Your task to perform on an android device: Clear the shopping cart on costco. Search for logitech g pro on costco, select the first entry, add it to the cart, then select checkout. Image 0: 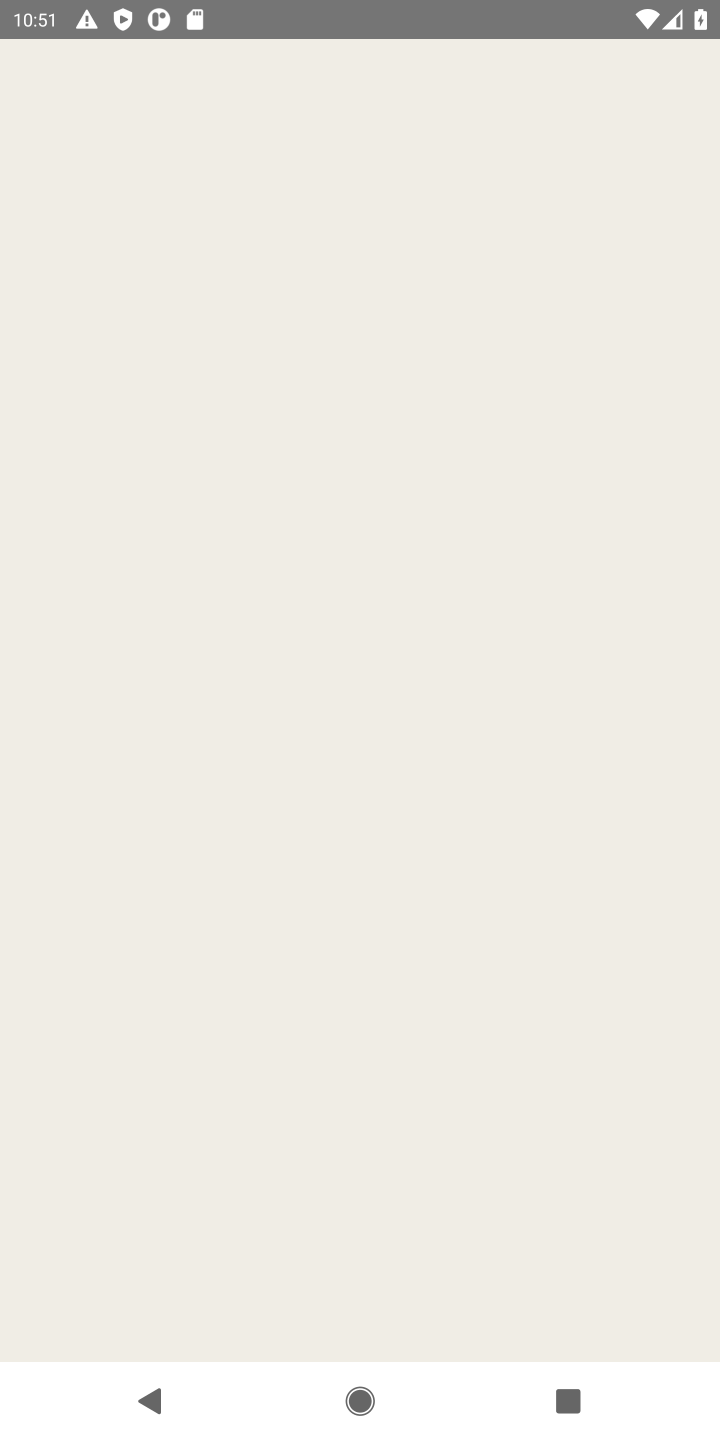
Step 0: press home button
Your task to perform on an android device: Clear the shopping cart on costco. Search for logitech g pro on costco, select the first entry, add it to the cart, then select checkout. Image 1: 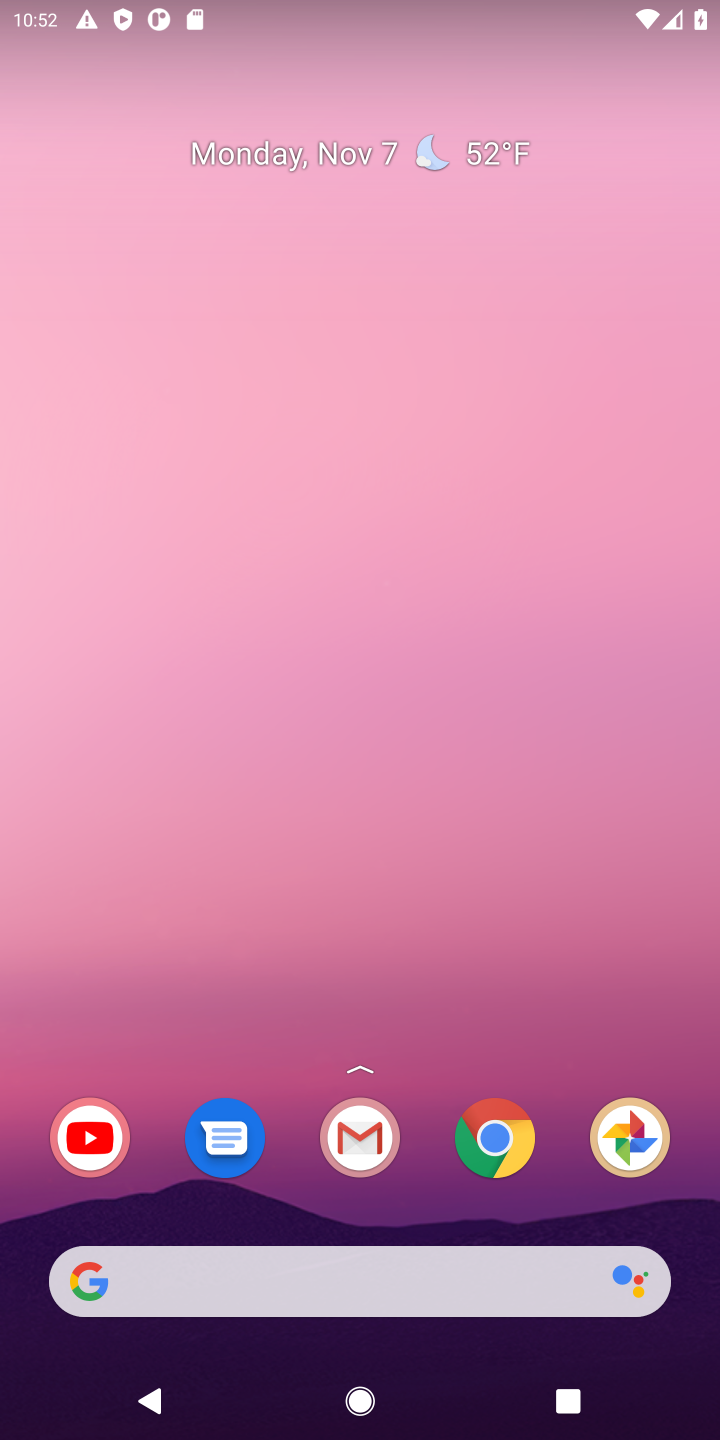
Step 1: click (496, 1130)
Your task to perform on an android device: Clear the shopping cart on costco. Search for logitech g pro on costco, select the first entry, add it to the cart, then select checkout. Image 2: 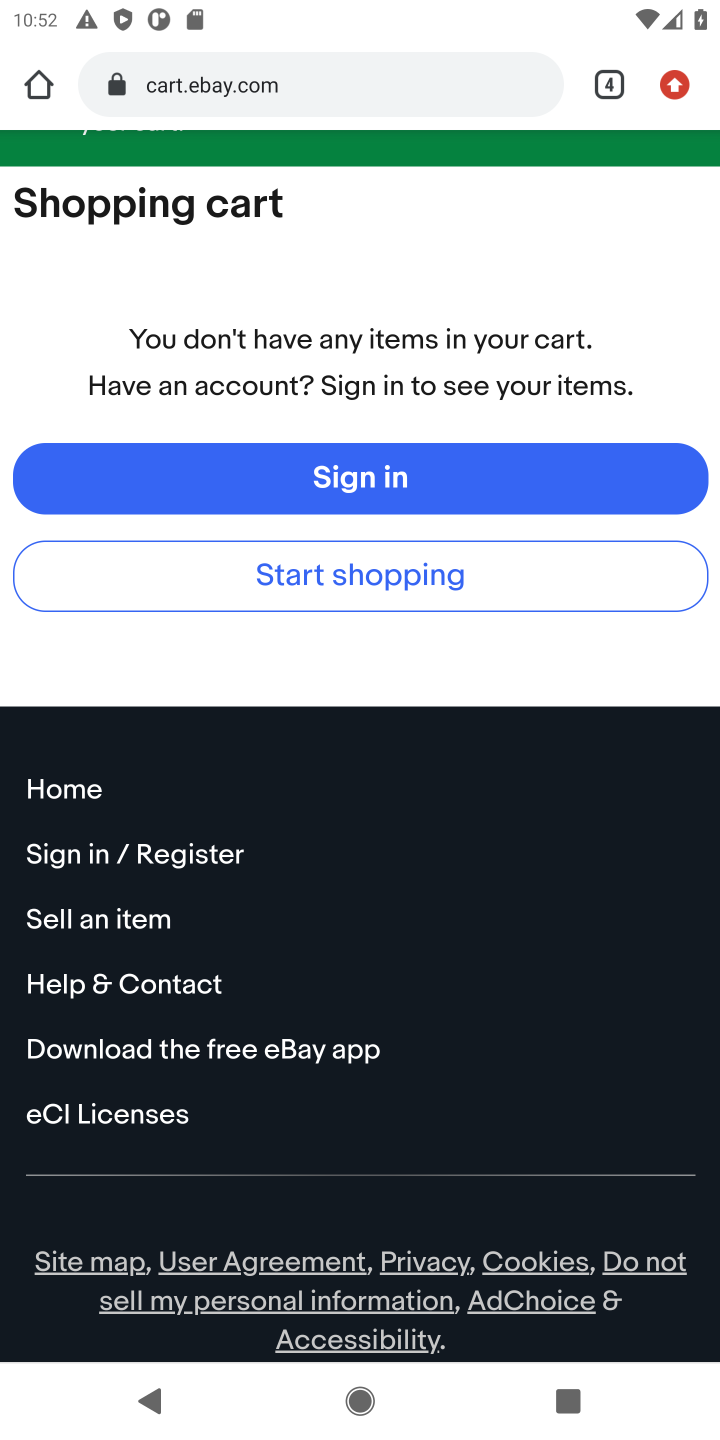
Step 2: click (214, 79)
Your task to perform on an android device: Clear the shopping cart on costco. Search for logitech g pro on costco, select the first entry, add it to the cart, then select checkout. Image 3: 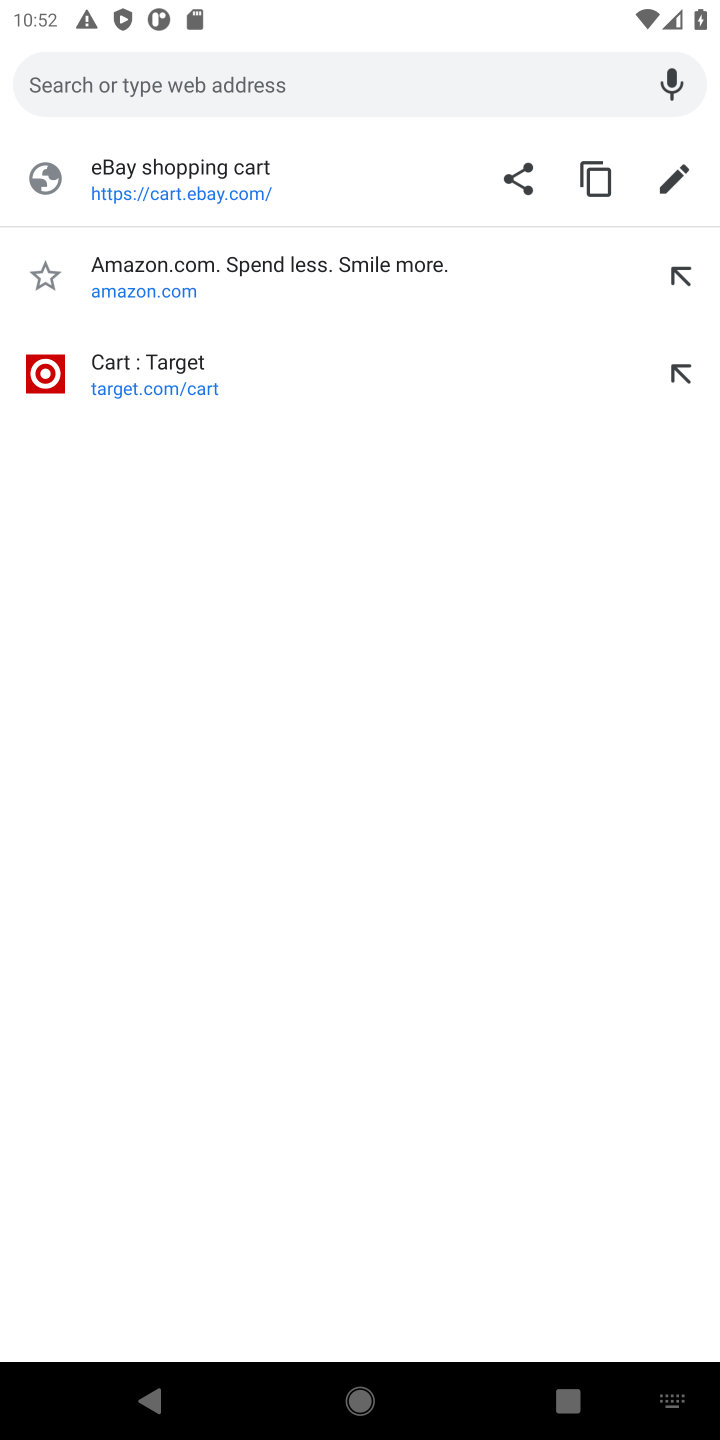
Step 3: type "costco"
Your task to perform on an android device: Clear the shopping cart on costco. Search for logitech g pro on costco, select the first entry, add it to the cart, then select checkout. Image 4: 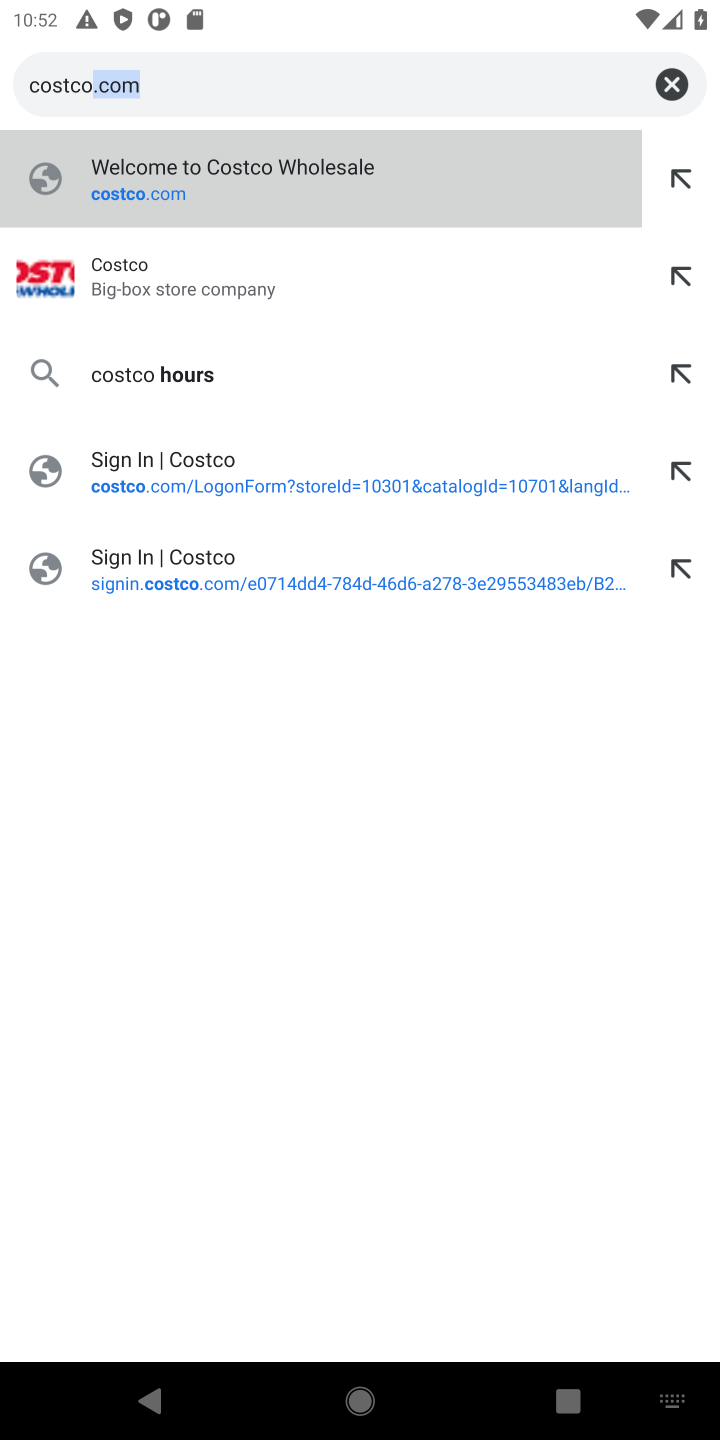
Step 4: click (147, 273)
Your task to perform on an android device: Clear the shopping cart on costco. Search for logitech g pro on costco, select the first entry, add it to the cart, then select checkout. Image 5: 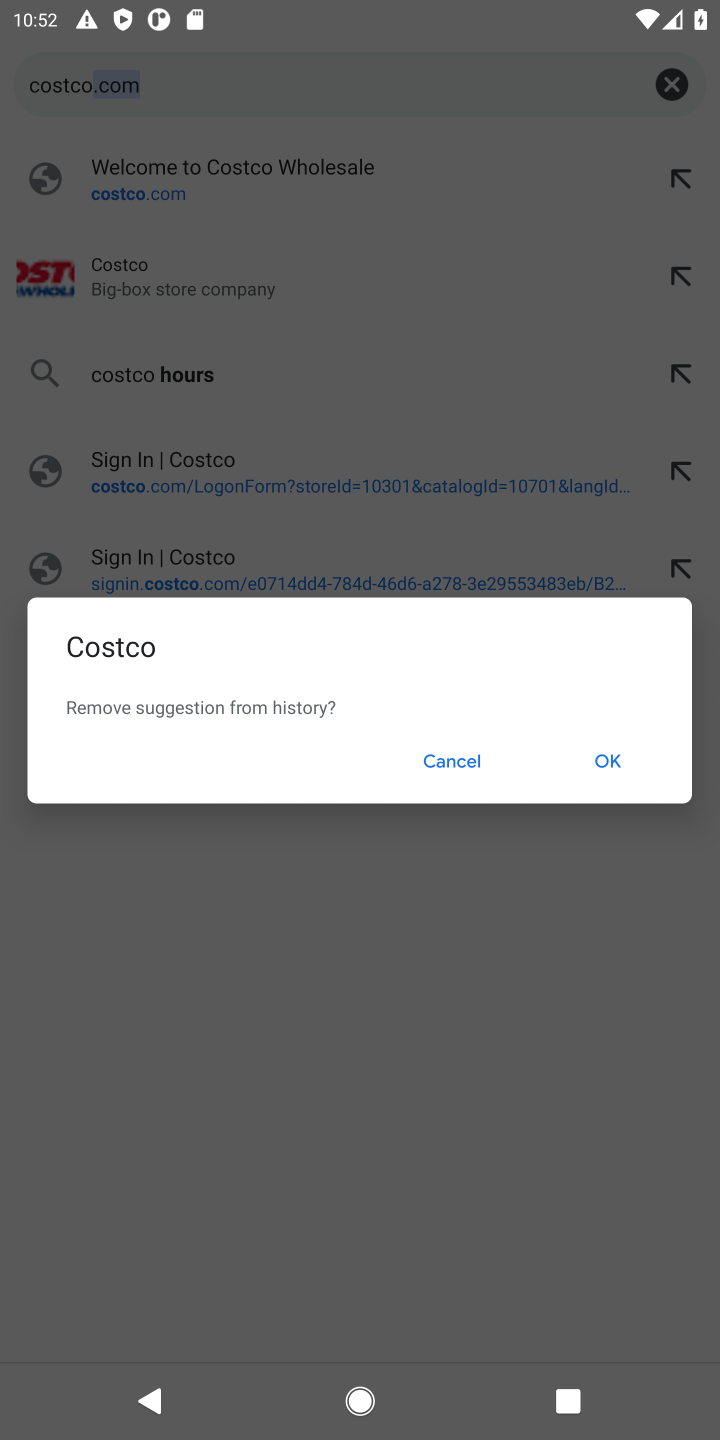
Step 5: click (599, 750)
Your task to perform on an android device: Clear the shopping cart on costco. Search for logitech g pro on costco, select the first entry, add it to the cart, then select checkout. Image 6: 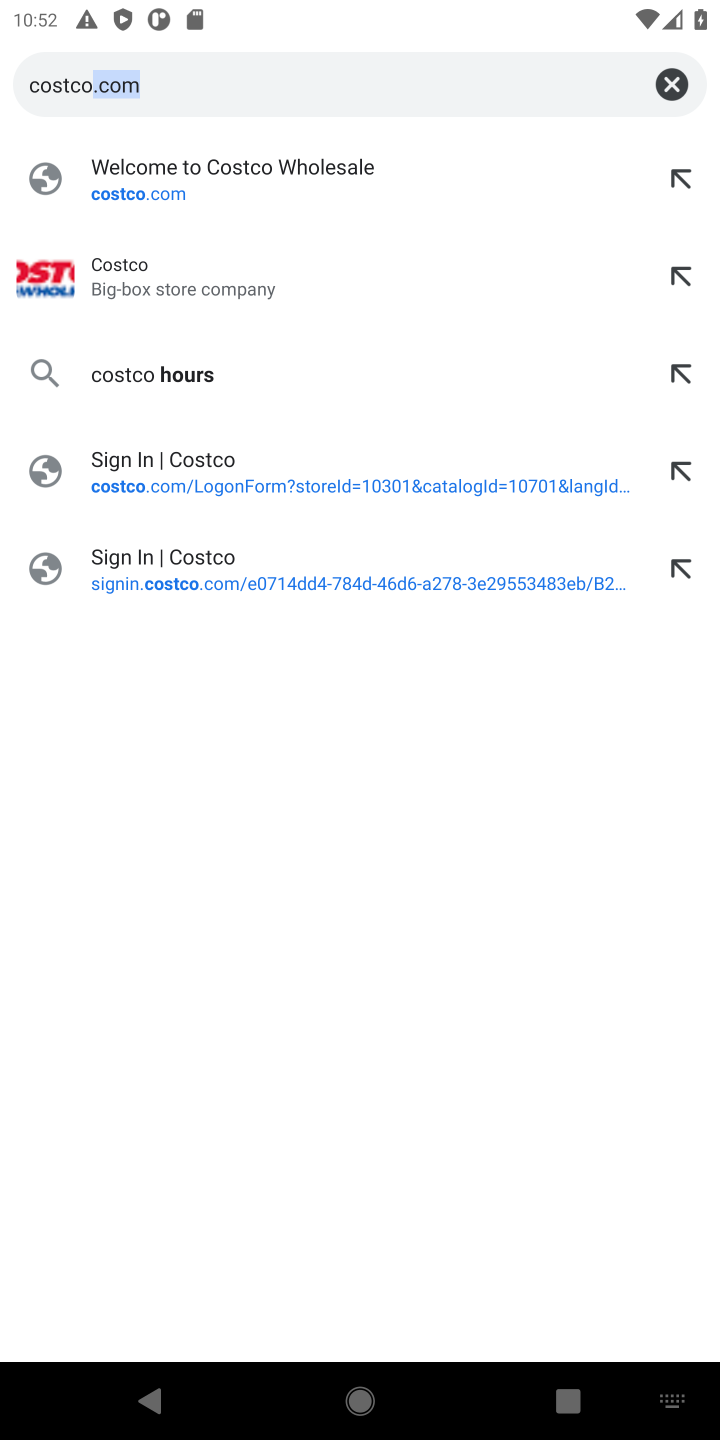
Step 6: click (98, 274)
Your task to perform on an android device: Clear the shopping cart on costco. Search for logitech g pro on costco, select the first entry, add it to the cart, then select checkout. Image 7: 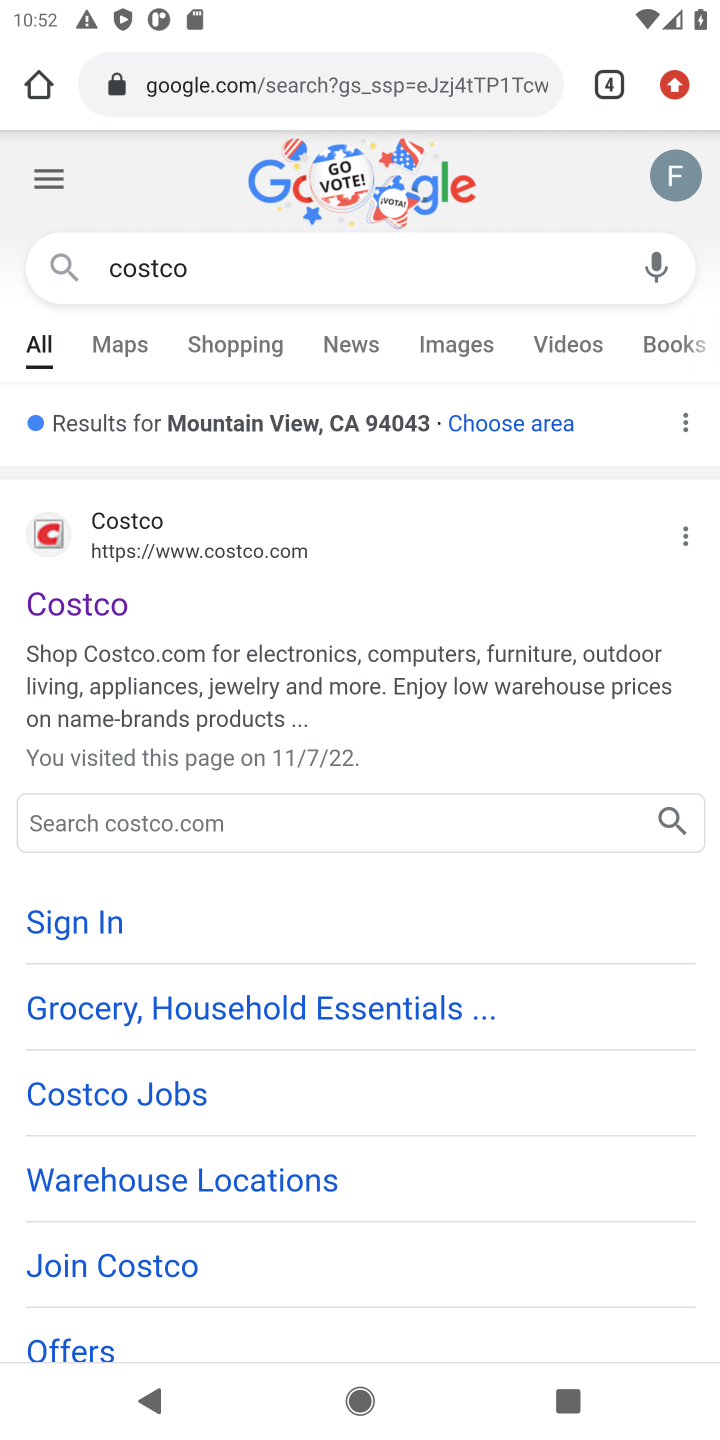
Step 7: click (72, 608)
Your task to perform on an android device: Clear the shopping cart on costco. Search for logitech g pro on costco, select the first entry, add it to the cart, then select checkout. Image 8: 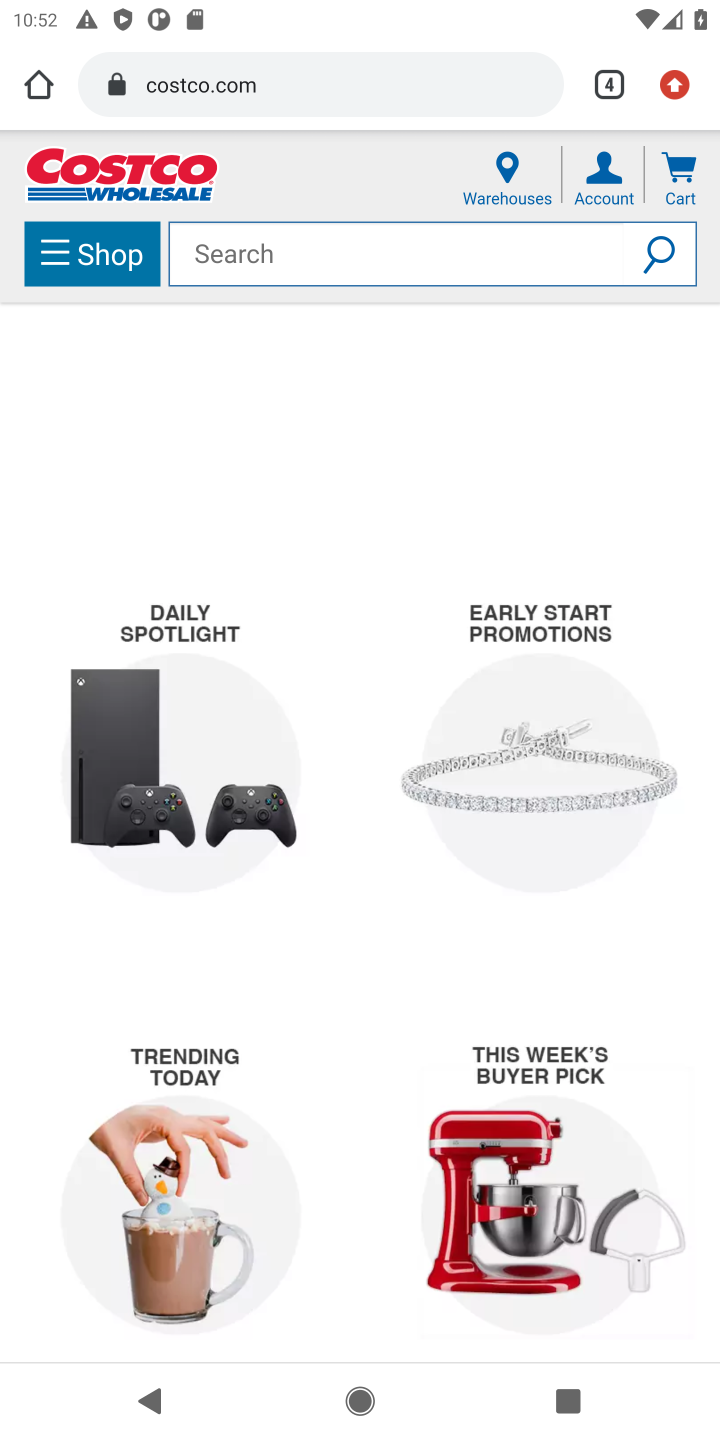
Step 8: click (259, 255)
Your task to perform on an android device: Clear the shopping cart on costco. Search for logitech g pro on costco, select the first entry, add it to the cart, then select checkout. Image 9: 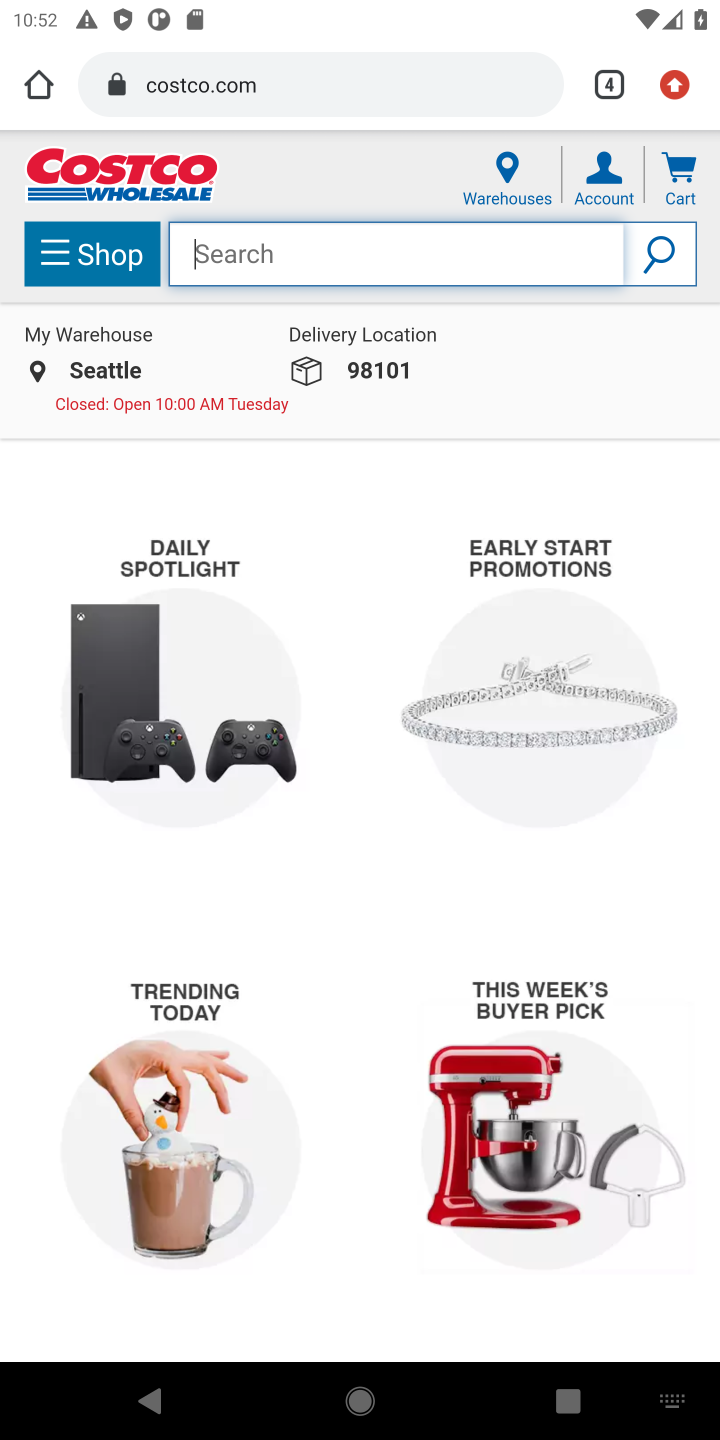
Step 9: type "logitech g pro"
Your task to perform on an android device: Clear the shopping cart on costco. Search for logitech g pro on costco, select the first entry, add it to the cart, then select checkout. Image 10: 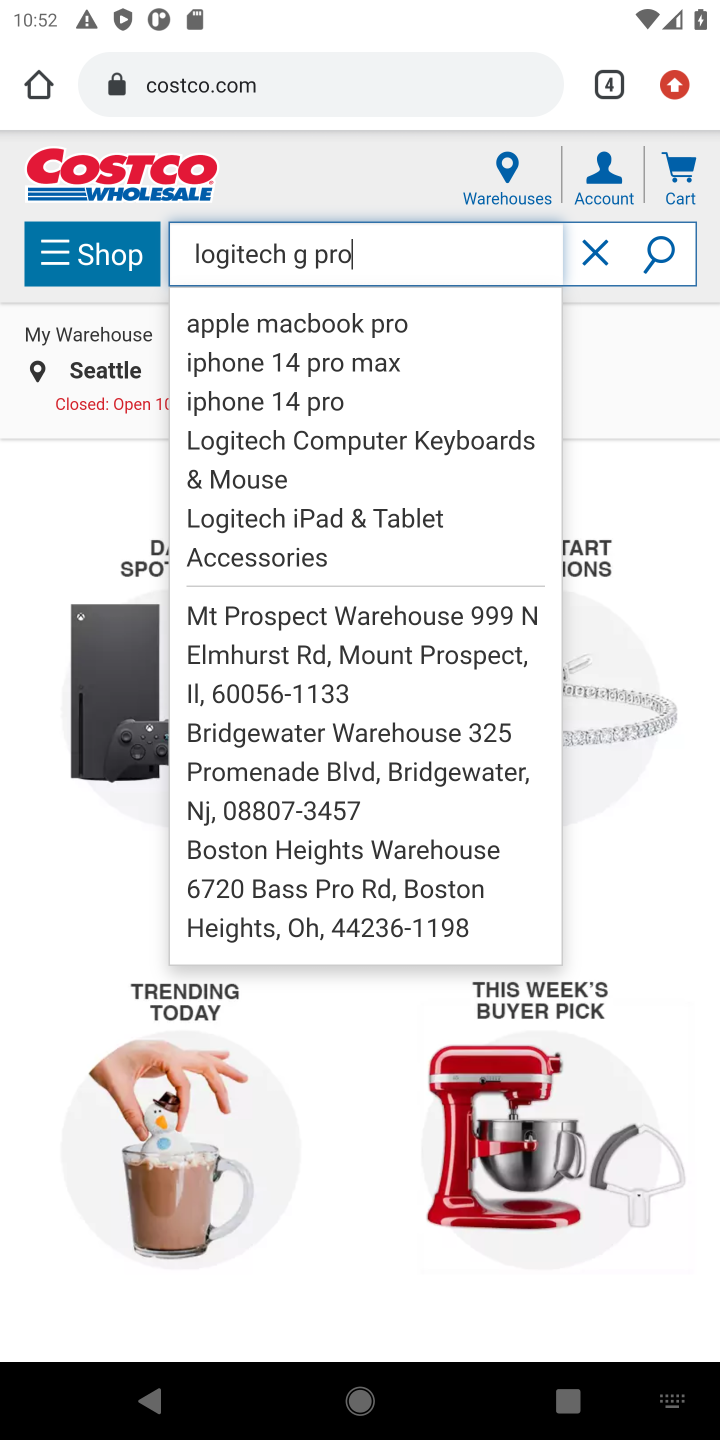
Step 10: type ""
Your task to perform on an android device: Clear the shopping cart on costco. Search for logitech g pro on costco, select the first entry, add it to the cart, then select checkout. Image 11: 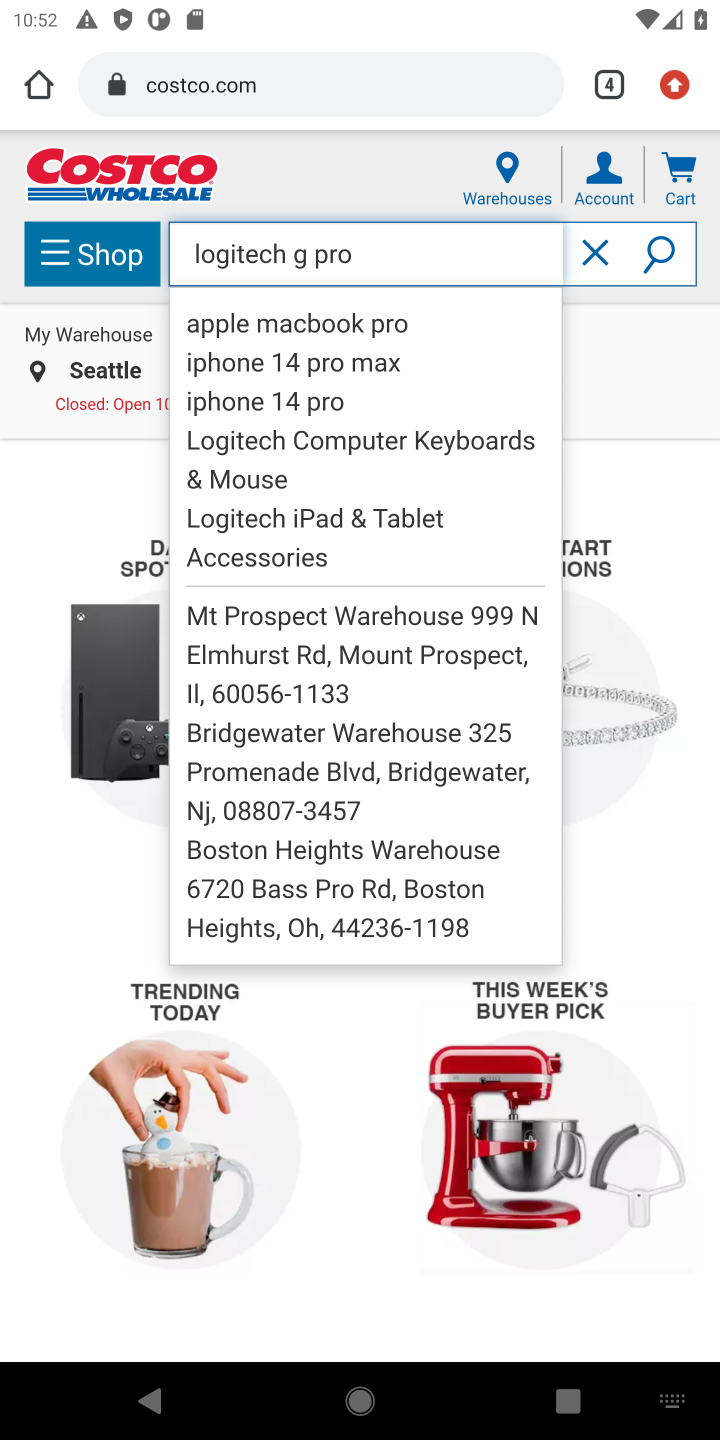
Step 11: click (234, 512)
Your task to perform on an android device: Clear the shopping cart on costco. Search for logitech g pro on costco, select the first entry, add it to the cart, then select checkout. Image 12: 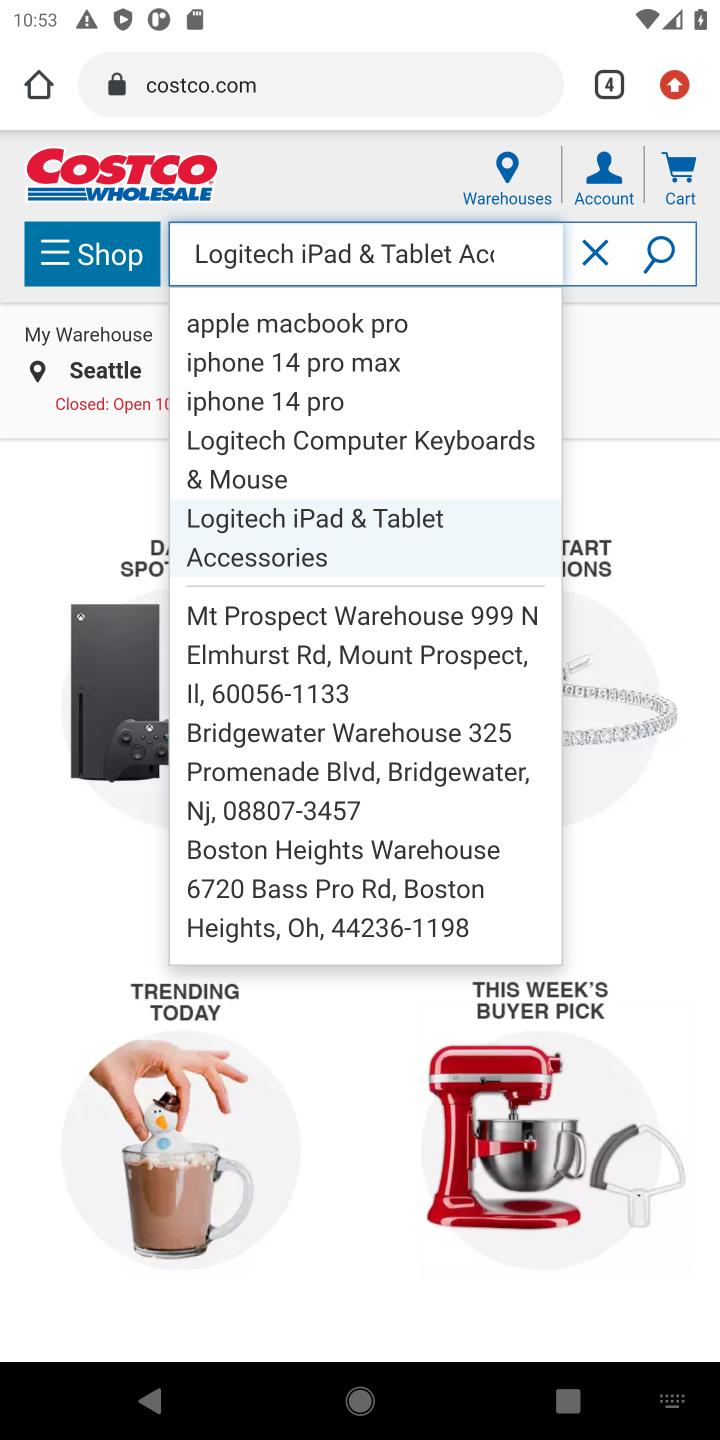
Step 12: click (304, 528)
Your task to perform on an android device: Clear the shopping cart on costco. Search for logitech g pro on costco, select the first entry, add it to the cart, then select checkout. Image 13: 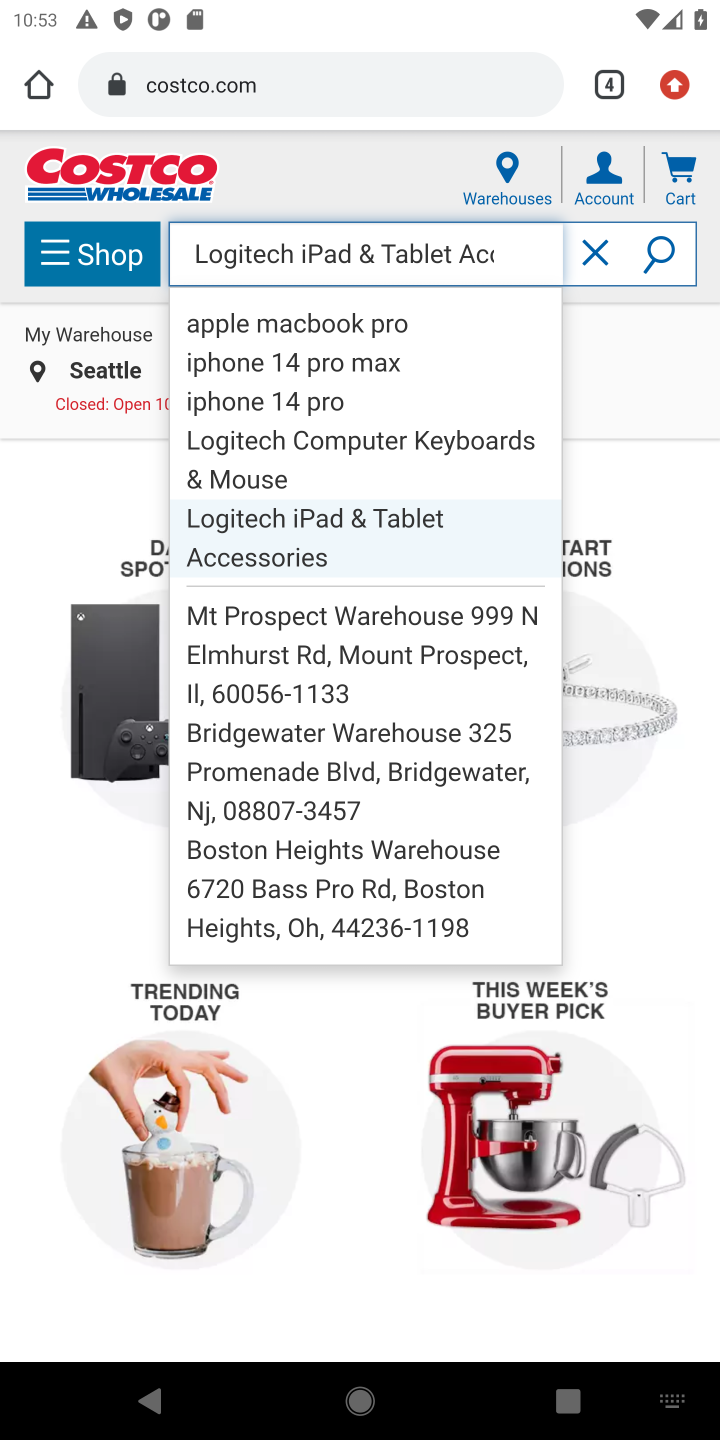
Step 13: click (304, 532)
Your task to perform on an android device: Clear the shopping cart on costco. Search for logitech g pro on costco, select the first entry, add it to the cart, then select checkout. Image 14: 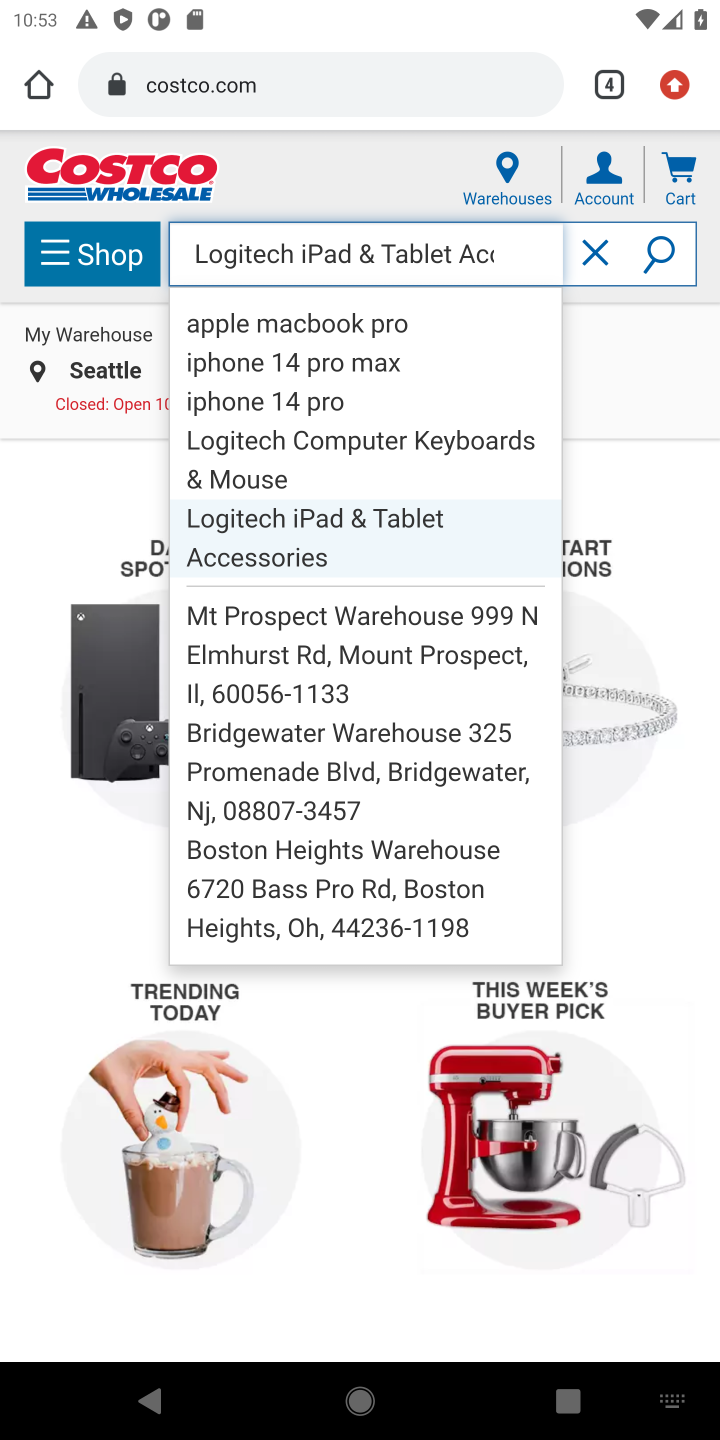
Step 14: click (654, 261)
Your task to perform on an android device: Clear the shopping cart on costco. Search for logitech g pro on costco, select the first entry, add it to the cart, then select checkout. Image 15: 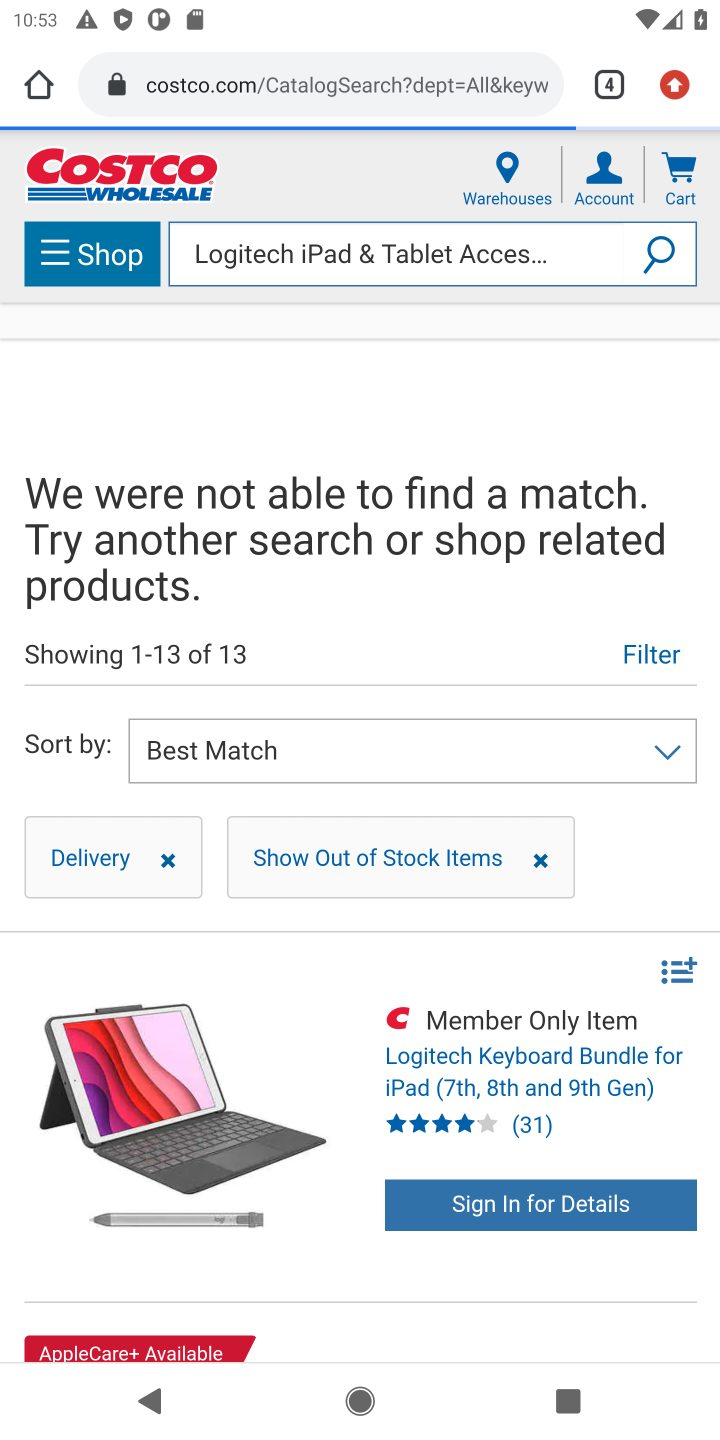
Step 15: drag from (429, 1117) to (341, 638)
Your task to perform on an android device: Clear the shopping cart on costco. Search for logitech g pro on costco, select the first entry, add it to the cart, then select checkout. Image 16: 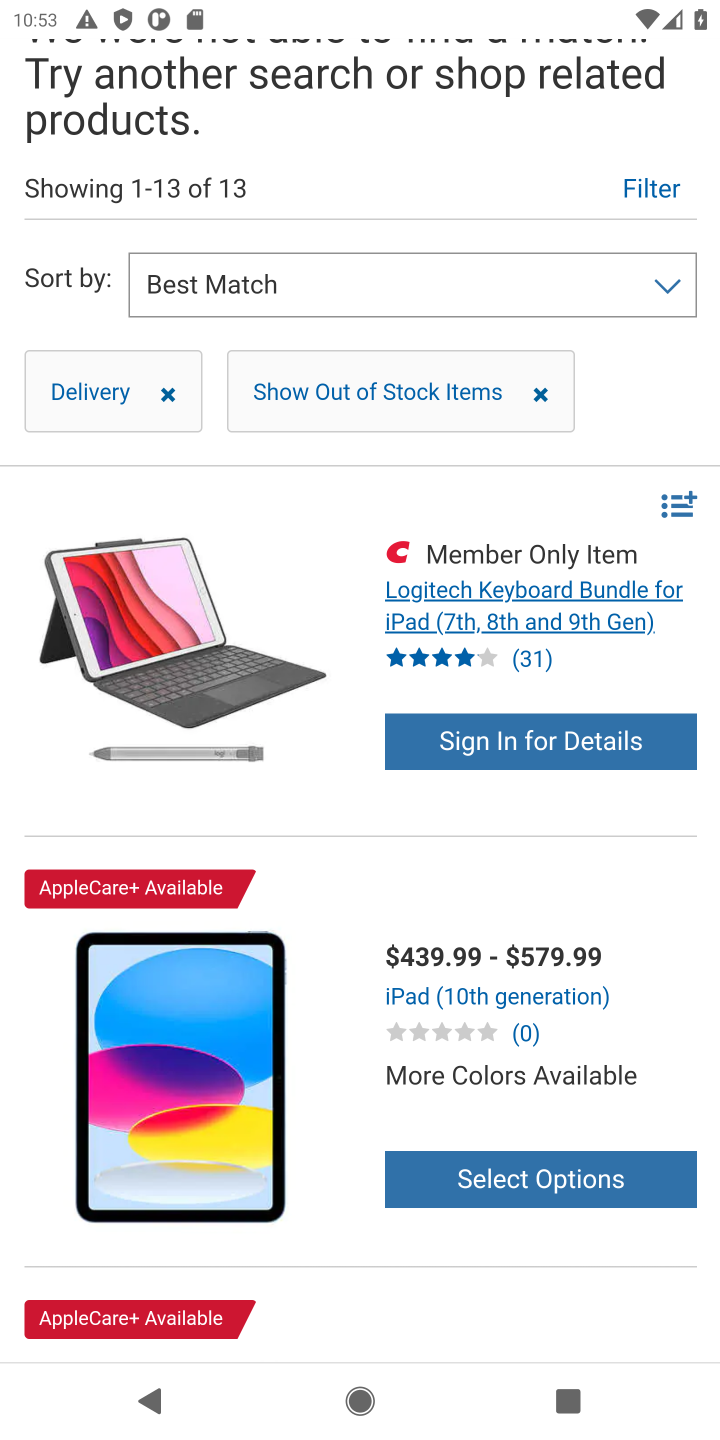
Step 16: drag from (350, 1202) to (394, 872)
Your task to perform on an android device: Clear the shopping cart on costco. Search for logitech g pro on costco, select the first entry, add it to the cart, then select checkout. Image 17: 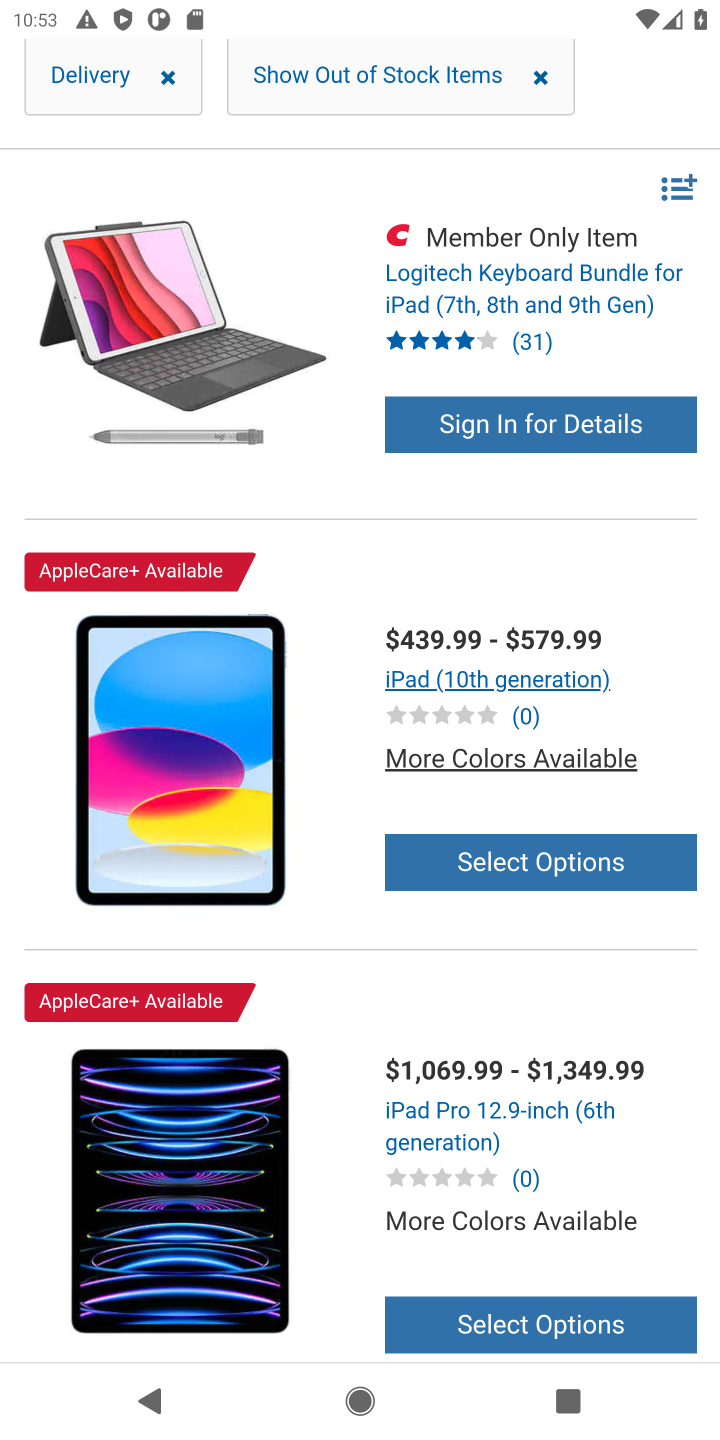
Step 17: drag from (567, 880) to (480, 338)
Your task to perform on an android device: Clear the shopping cart on costco. Search for logitech g pro on costco, select the first entry, add it to the cart, then select checkout. Image 18: 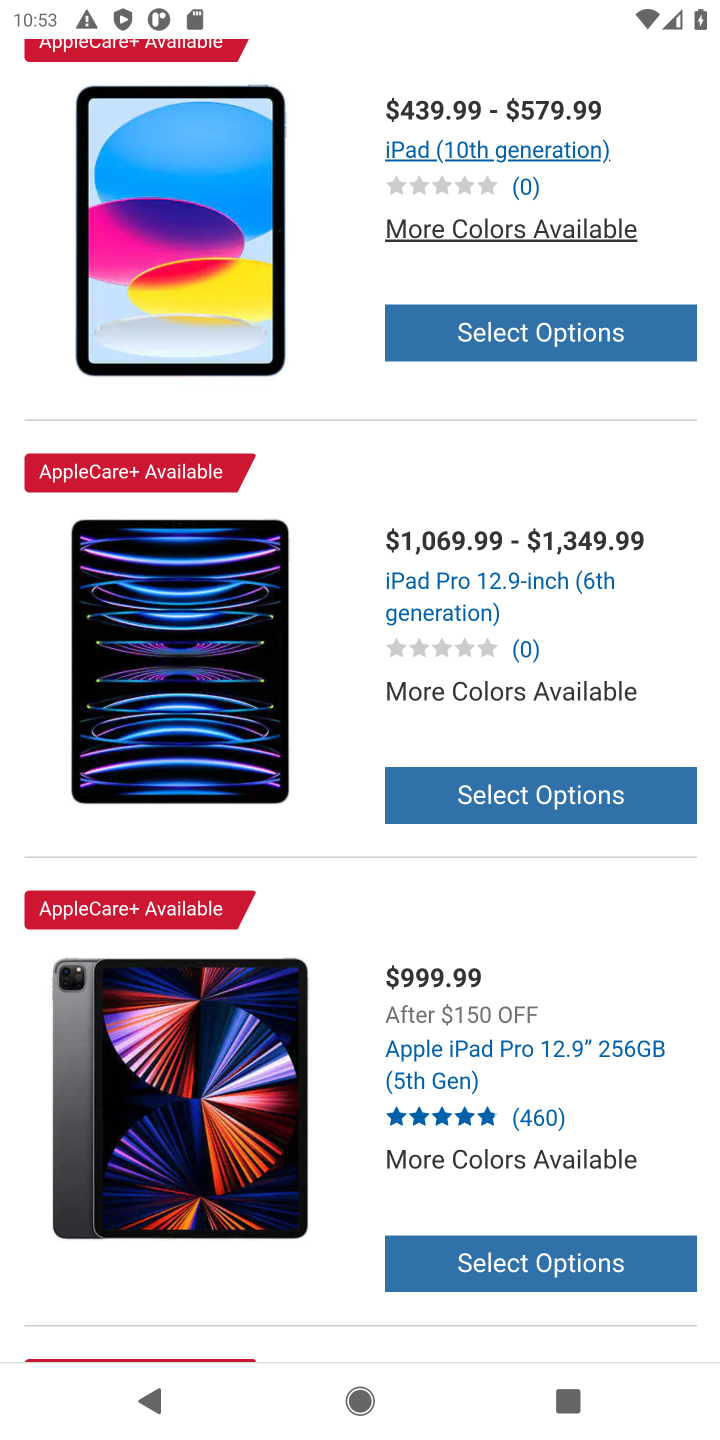
Step 18: click (426, 565)
Your task to perform on an android device: Clear the shopping cart on costco. Search for logitech g pro on costco, select the first entry, add it to the cart, then select checkout. Image 19: 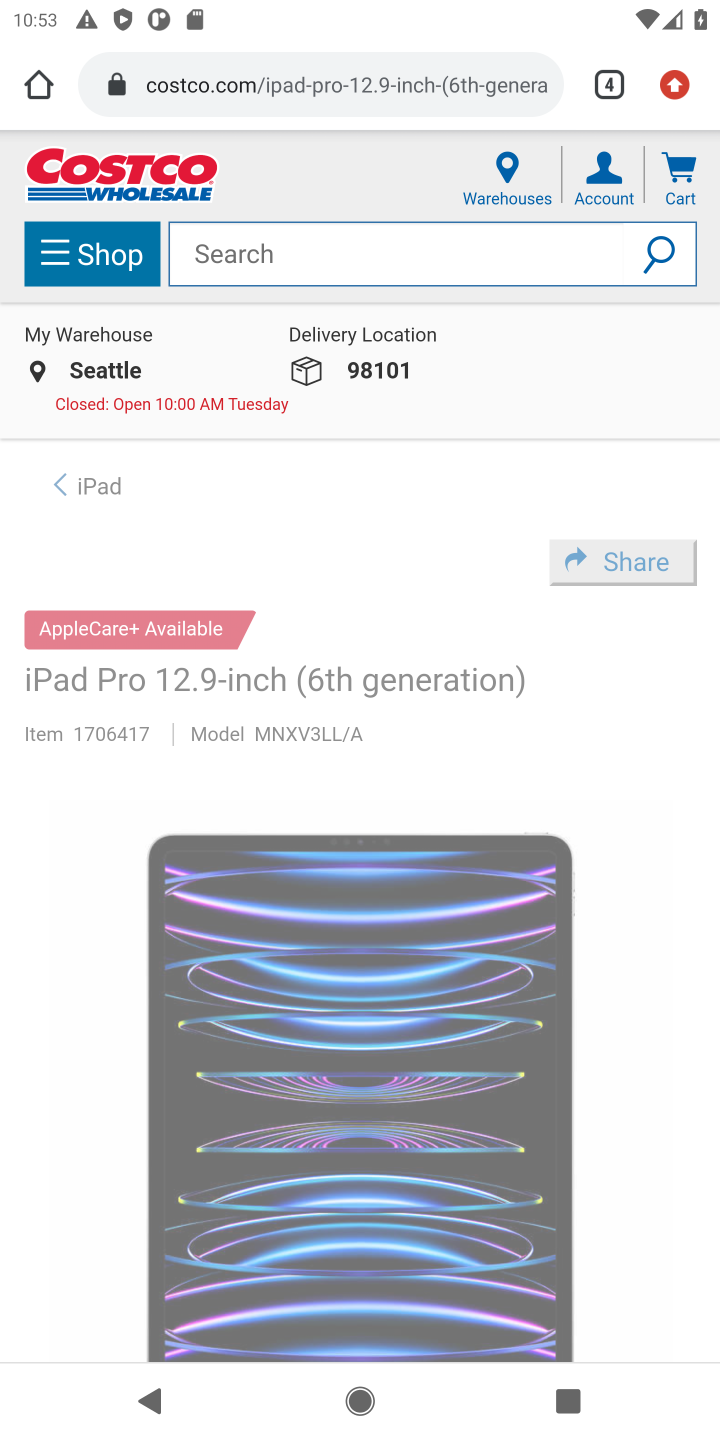
Step 19: drag from (512, 1012) to (533, 284)
Your task to perform on an android device: Clear the shopping cart on costco. Search for logitech g pro on costco, select the first entry, add it to the cart, then select checkout. Image 20: 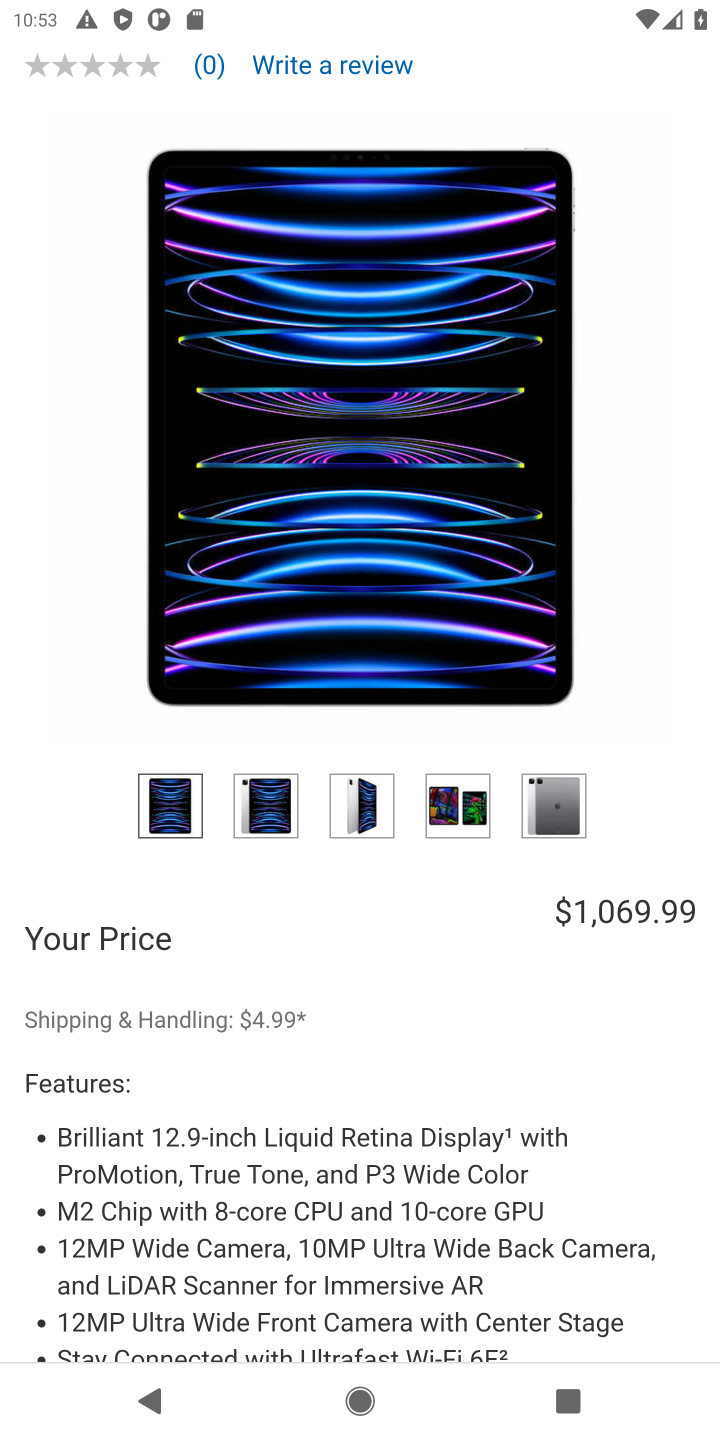
Step 20: drag from (271, 1144) to (269, 611)
Your task to perform on an android device: Clear the shopping cart on costco. Search for logitech g pro on costco, select the first entry, add it to the cart, then select checkout. Image 21: 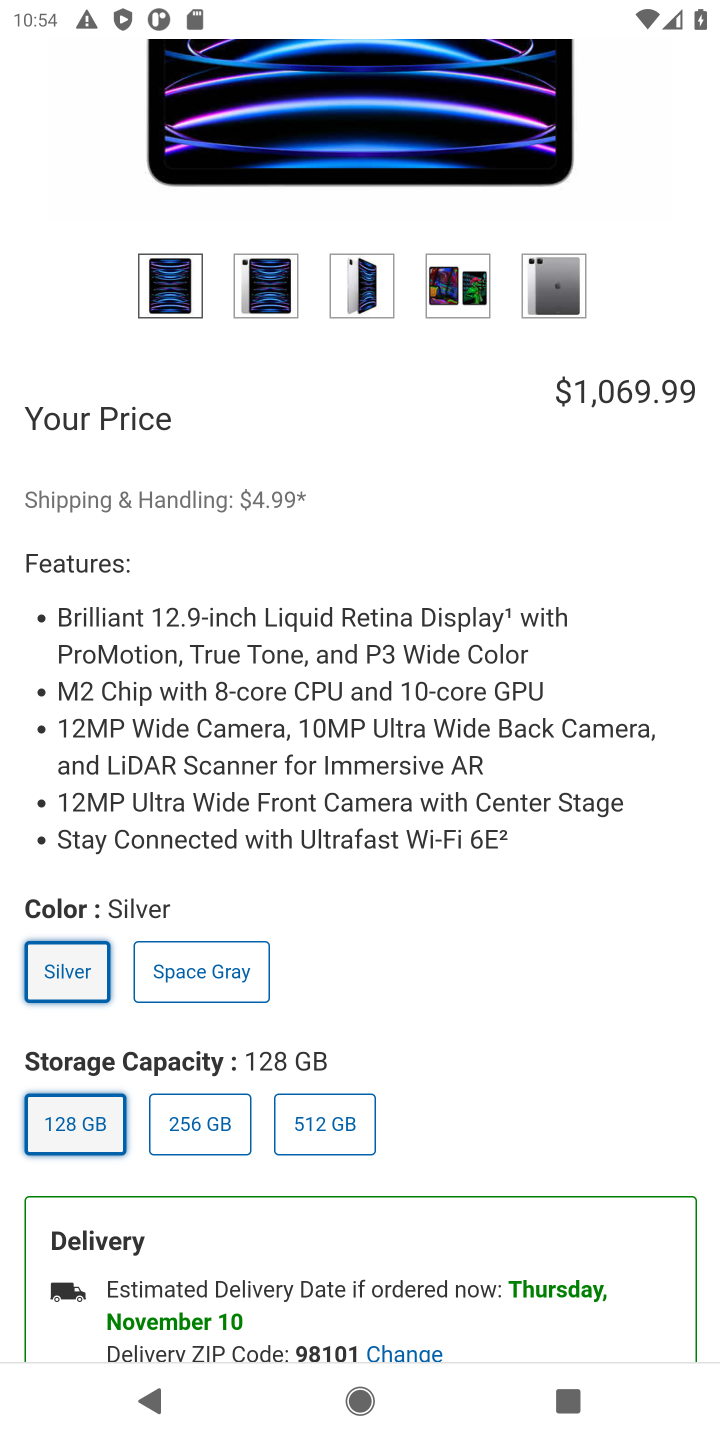
Step 21: drag from (518, 1158) to (454, 547)
Your task to perform on an android device: Clear the shopping cart on costco. Search for logitech g pro on costco, select the first entry, add it to the cart, then select checkout. Image 22: 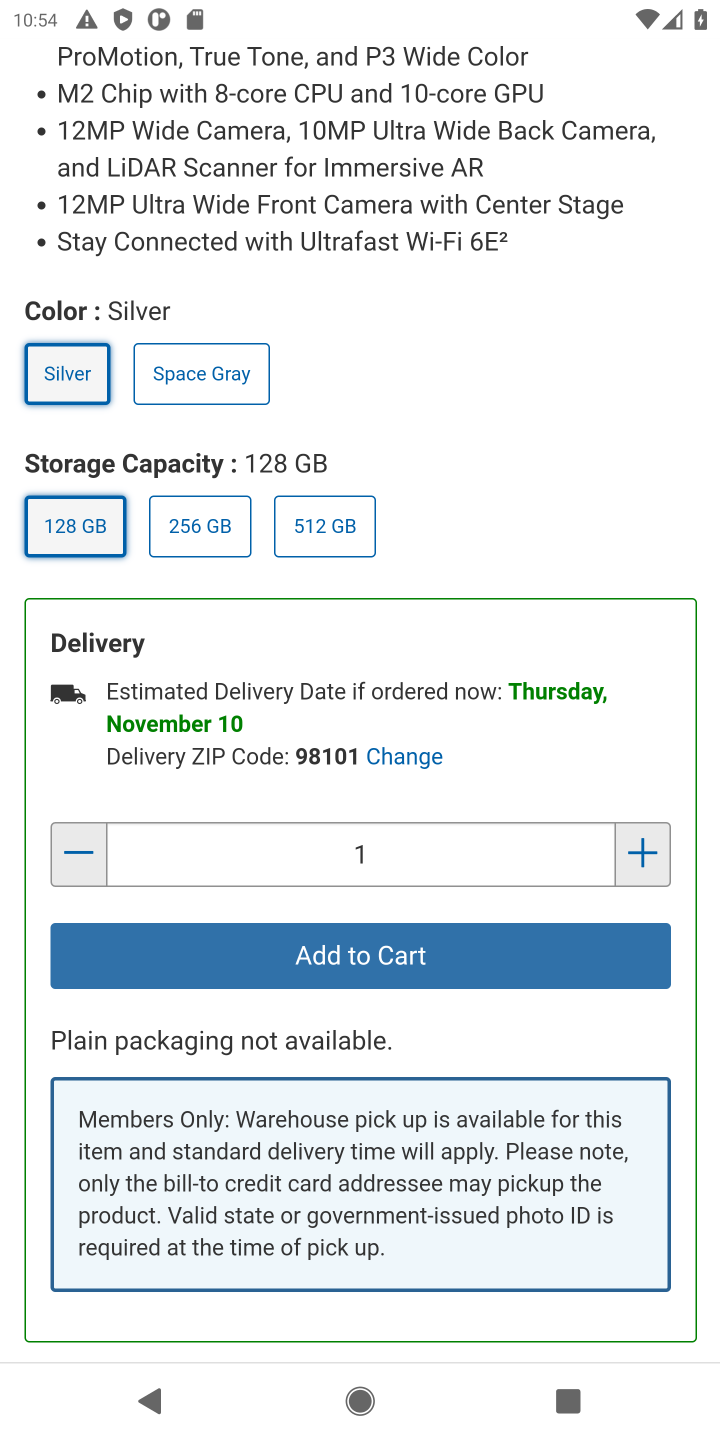
Step 22: click (386, 977)
Your task to perform on an android device: Clear the shopping cart on costco. Search for logitech g pro on costco, select the first entry, add it to the cart, then select checkout. Image 23: 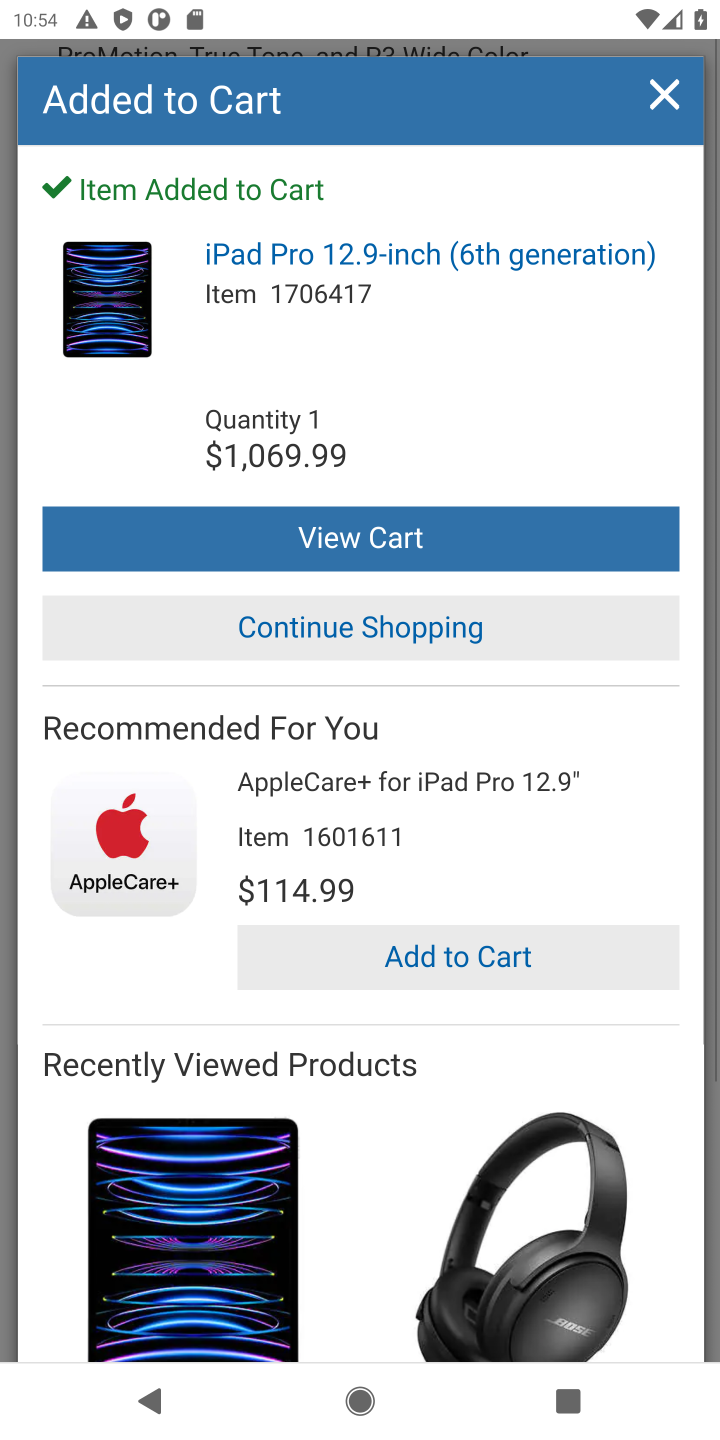
Step 23: click (348, 531)
Your task to perform on an android device: Clear the shopping cart on costco. Search for logitech g pro on costco, select the first entry, add it to the cart, then select checkout. Image 24: 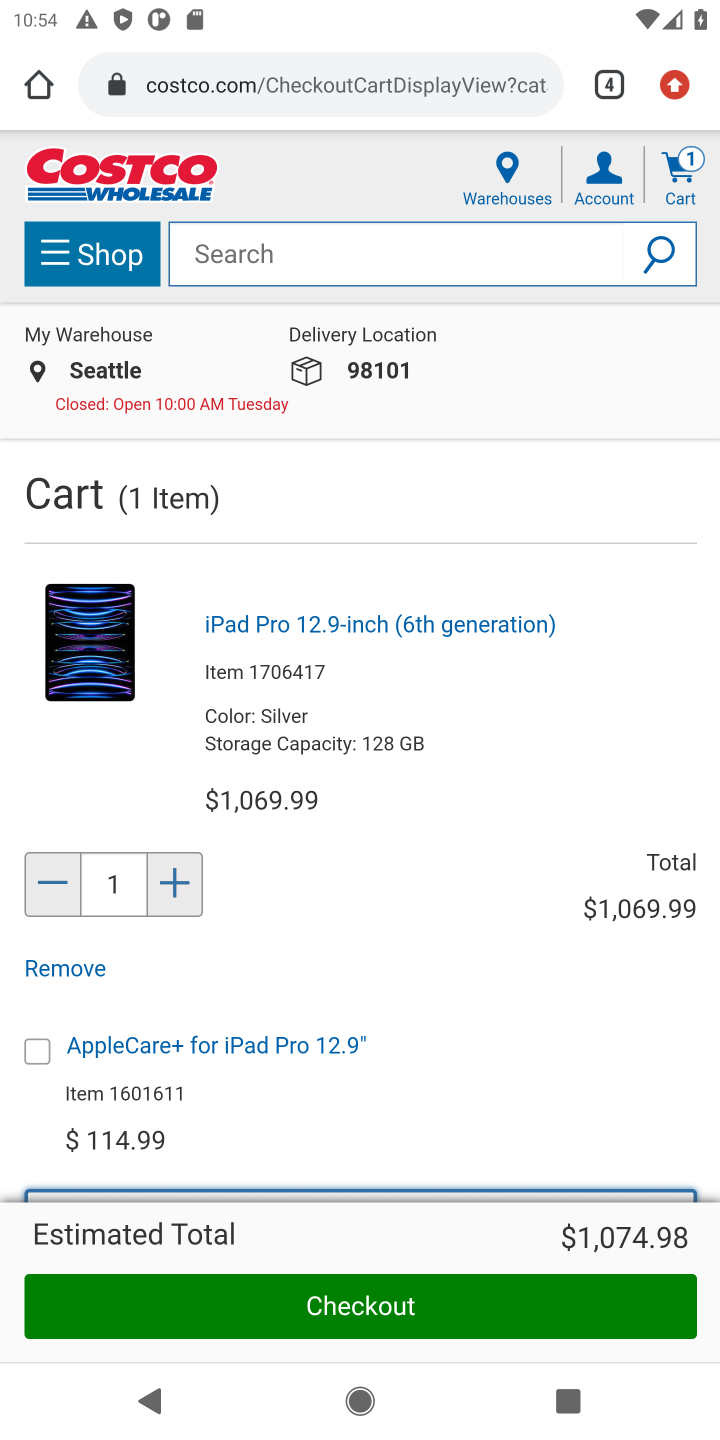
Step 24: click (455, 1299)
Your task to perform on an android device: Clear the shopping cart on costco. Search for logitech g pro on costco, select the first entry, add it to the cart, then select checkout. Image 25: 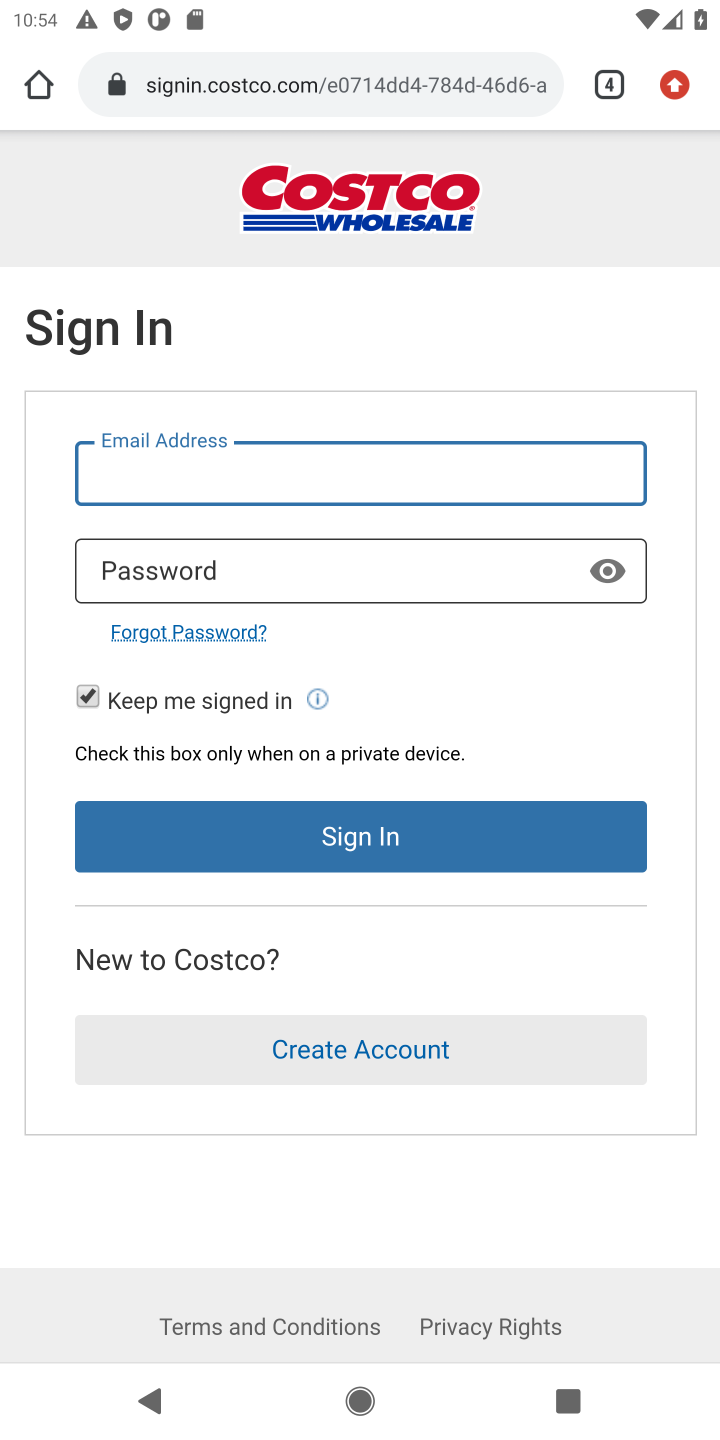
Step 25: task complete